Your task to perform on an android device: Open Google Chrome and click the shortcut for Amazon.com Image 0: 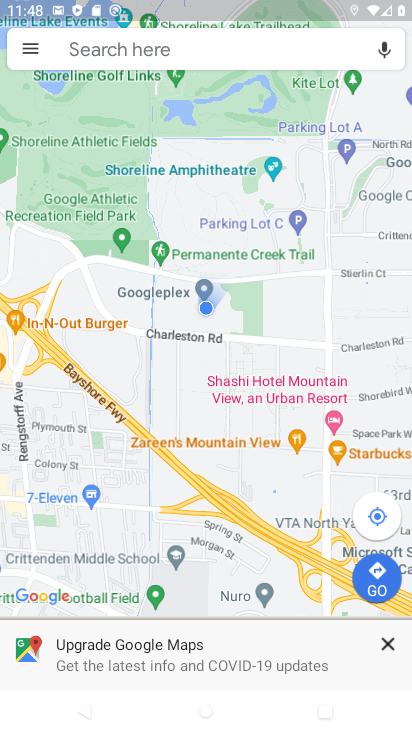
Step 0: press home button
Your task to perform on an android device: Open Google Chrome and click the shortcut for Amazon.com Image 1: 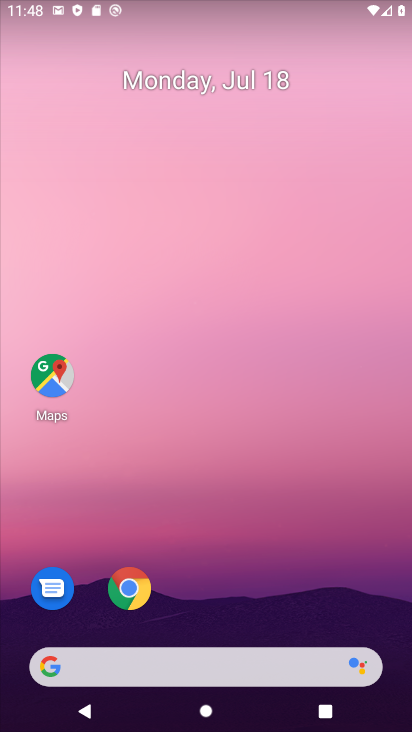
Step 1: drag from (384, 645) to (220, 84)
Your task to perform on an android device: Open Google Chrome and click the shortcut for Amazon.com Image 2: 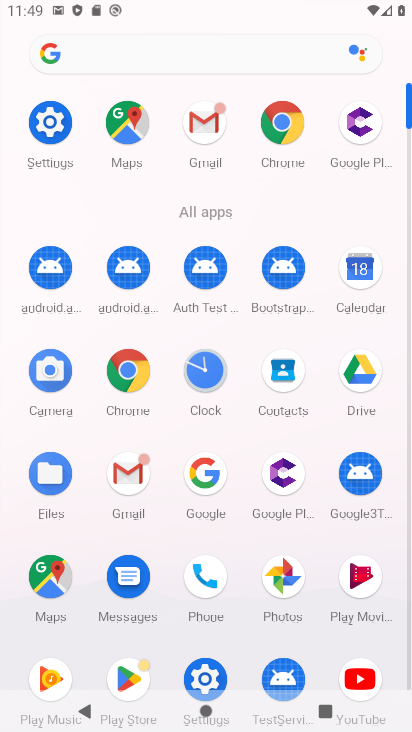
Step 2: click (122, 391)
Your task to perform on an android device: Open Google Chrome and click the shortcut for Amazon.com Image 3: 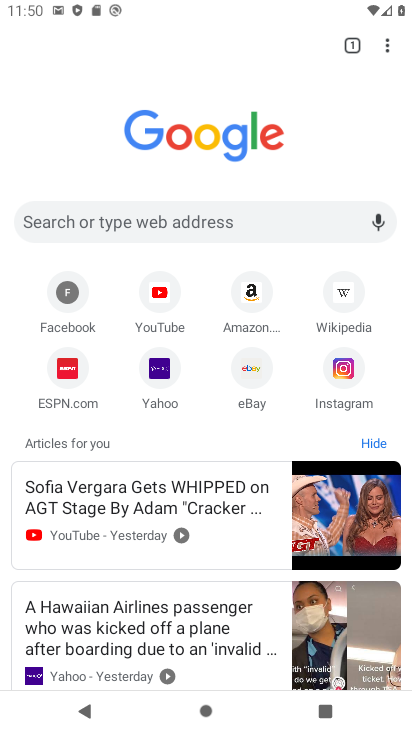
Step 3: click (387, 47)
Your task to perform on an android device: Open Google Chrome and click the shortcut for Amazon.com Image 4: 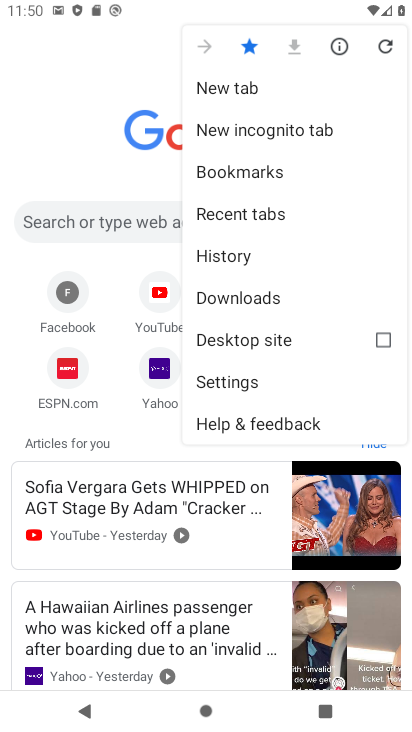
Step 4: click (135, 106)
Your task to perform on an android device: Open Google Chrome and click the shortcut for Amazon.com Image 5: 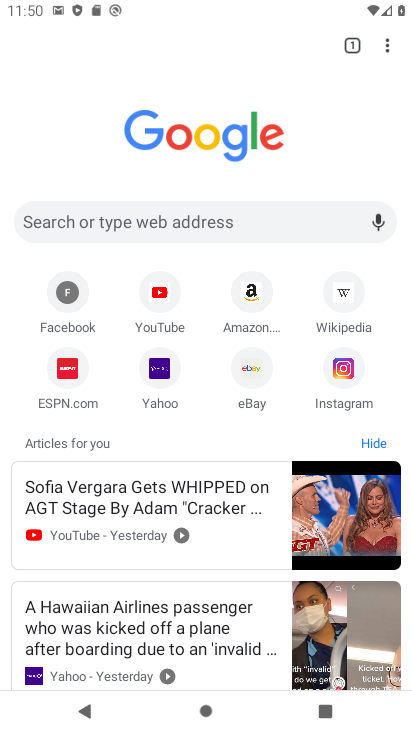
Step 5: click (237, 297)
Your task to perform on an android device: Open Google Chrome and click the shortcut for Amazon.com Image 6: 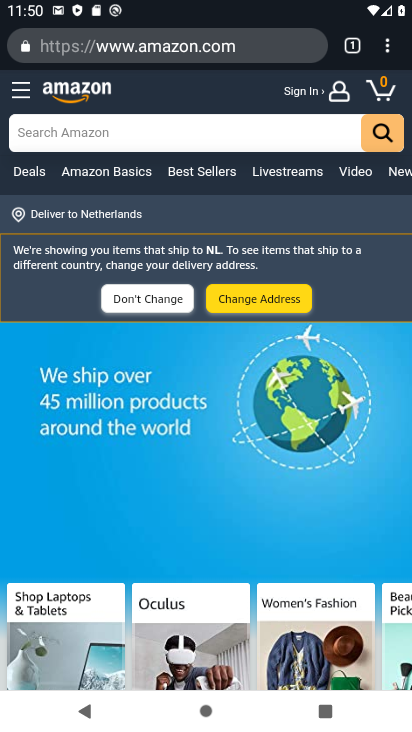
Step 6: task complete